Your task to perform on an android device: Go to network settings Image 0: 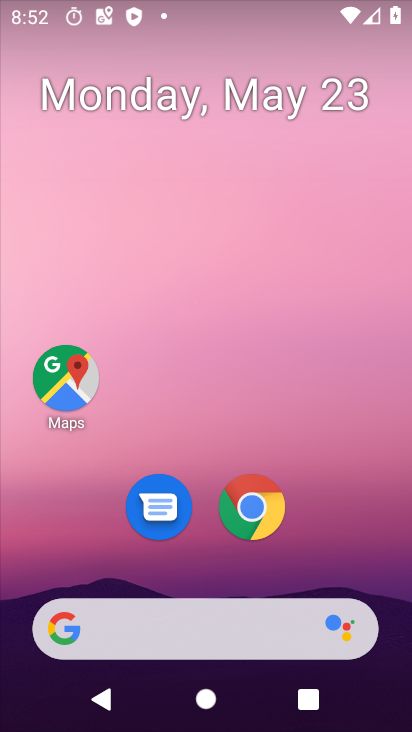
Step 0: drag from (357, 538) to (305, 108)
Your task to perform on an android device: Go to network settings Image 1: 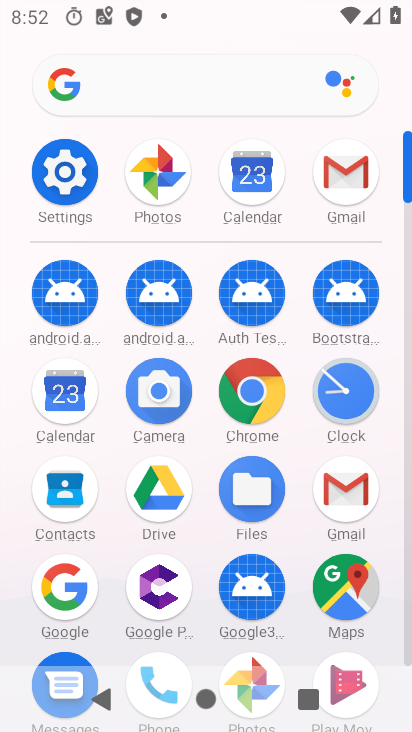
Step 1: click (59, 197)
Your task to perform on an android device: Go to network settings Image 2: 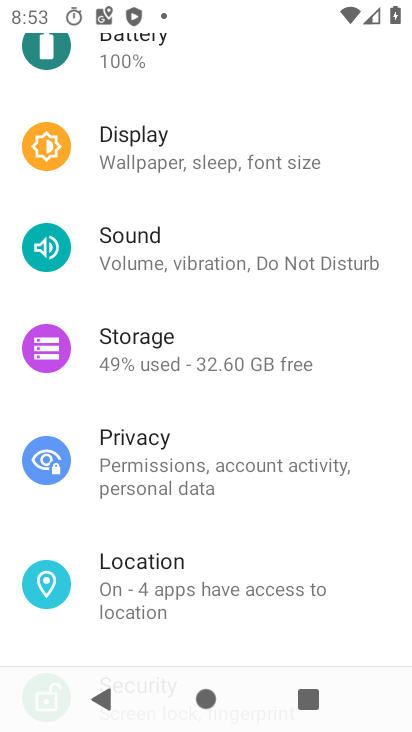
Step 2: drag from (118, 115) to (161, 532)
Your task to perform on an android device: Go to network settings Image 3: 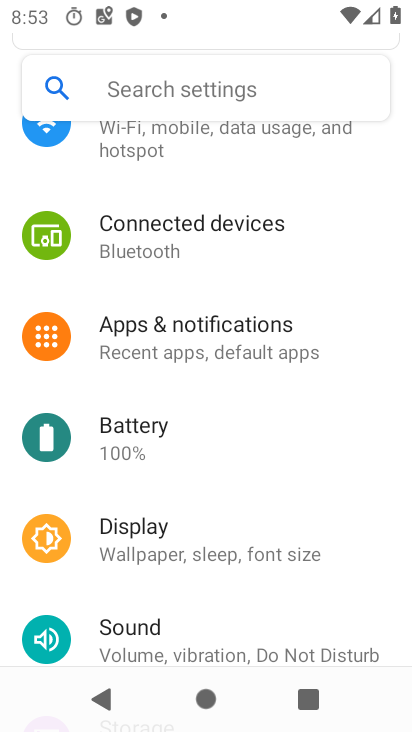
Step 3: drag from (195, 136) to (237, 621)
Your task to perform on an android device: Go to network settings Image 4: 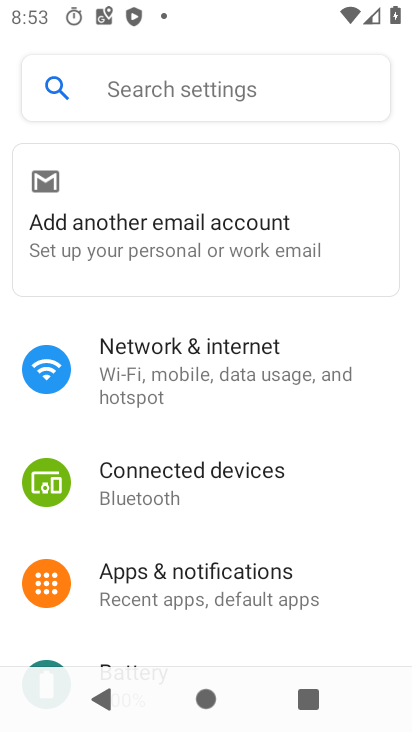
Step 4: click (172, 355)
Your task to perform on an android device: Go to network settings Image 5: 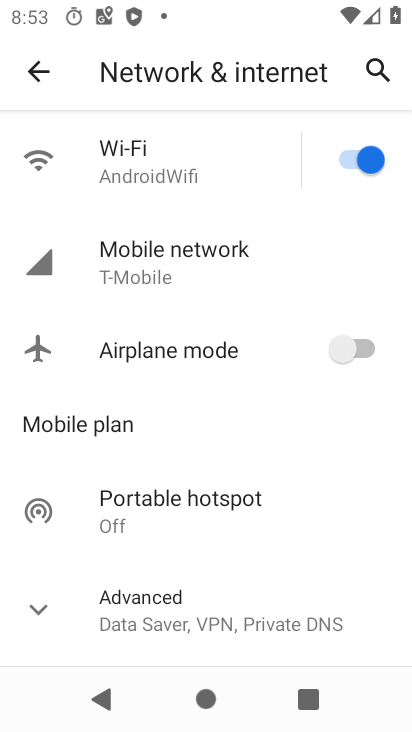
Step 5: task complete